Your task to perform on an android device: Open Android settings Image 0: 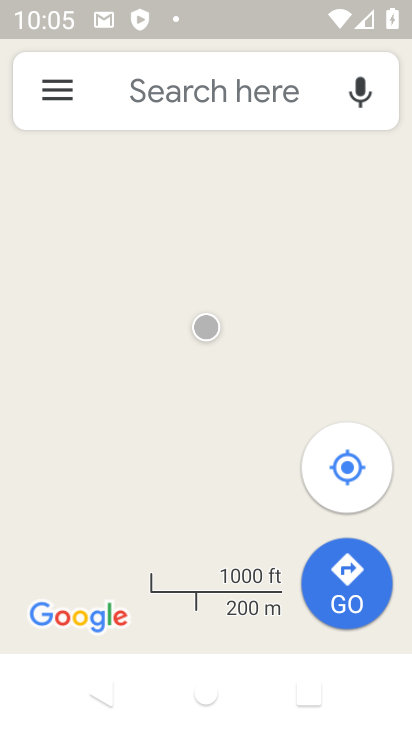
Step 0: press home button
Your task to perform on an android device: Open Android settings Image 1: 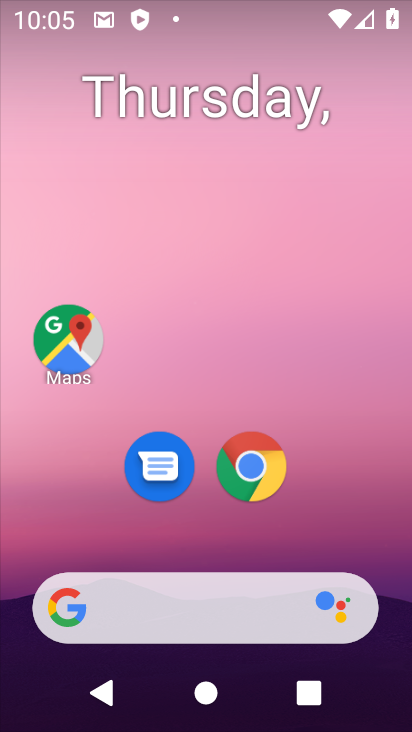
Step 1: drag from (167, 600) to (304, 68)
Your task to perform on an android device: Open Android settings Image 2: 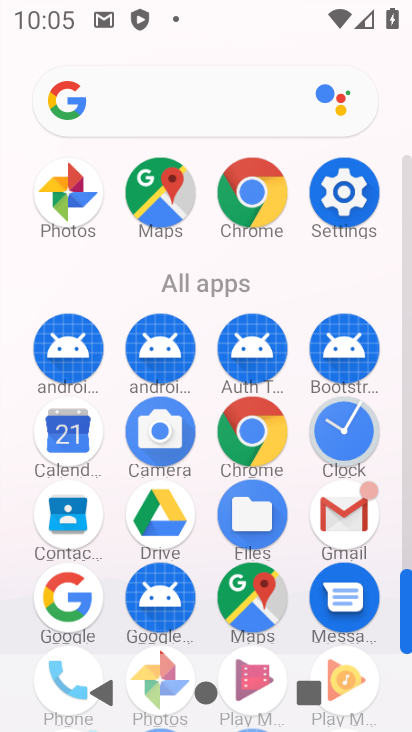
Step 2: click (346, 199)
Your task to perform on an android device: Open Android settings Image 3: 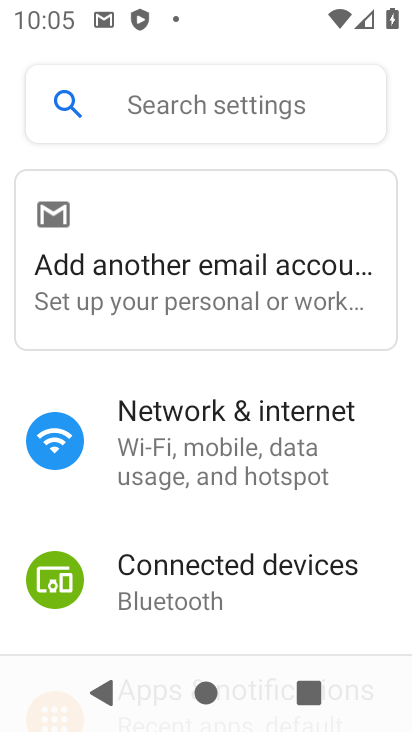
Step 3: task complete